Your task to perform on an android device: Search for seafood restaurants on Google Maps Image 0: 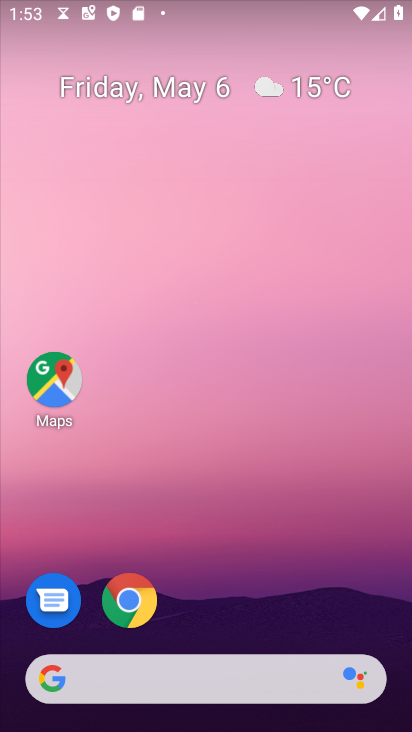
Step 0: drag from (271, 545) to (204, 38)
Your task to perform on an android device: Search for seafood restaurants on Google Maps Image 1: 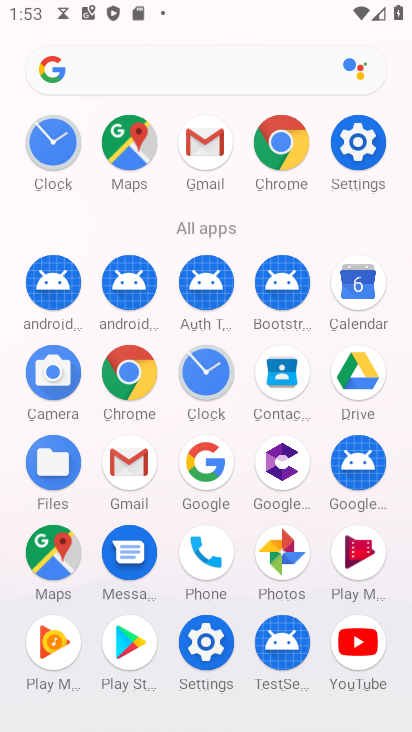
Step 1: drag from (20, 528) to (2, 220)
Your task to perform on an android device: Search for seafood restaurants on Google Maps Image 2: 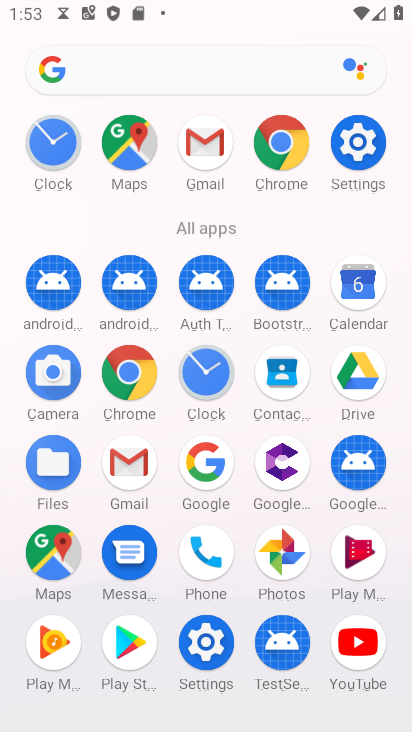
Step 2: click (45, 551)
Your task to perform on an android device: Search for seafood restaurants on Google Maps Image 3: 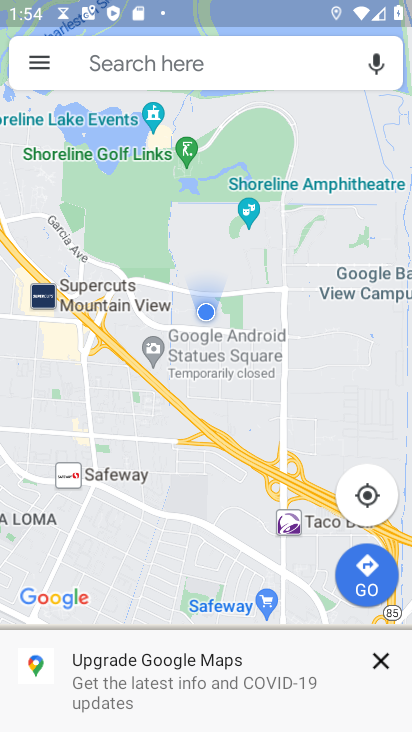
Step 3: click (248, 57)
Your task to perform on an android device: Search for seafood restaurants on Google Maps Image 4: 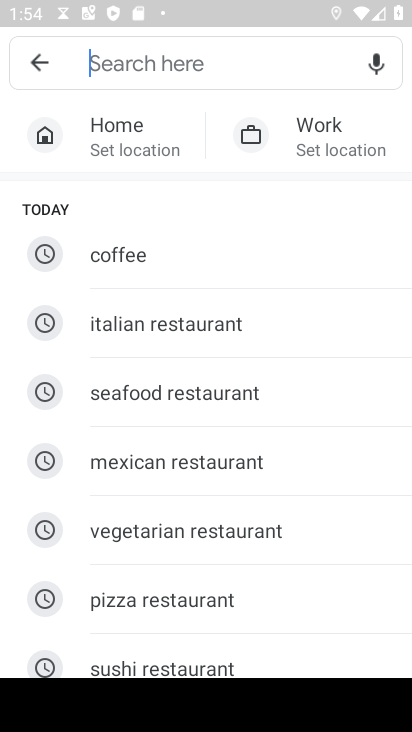
Step 4: click (185, 383)
Your task to perform on an android device: Search for seafood restaurants on Google Maps Image 5: 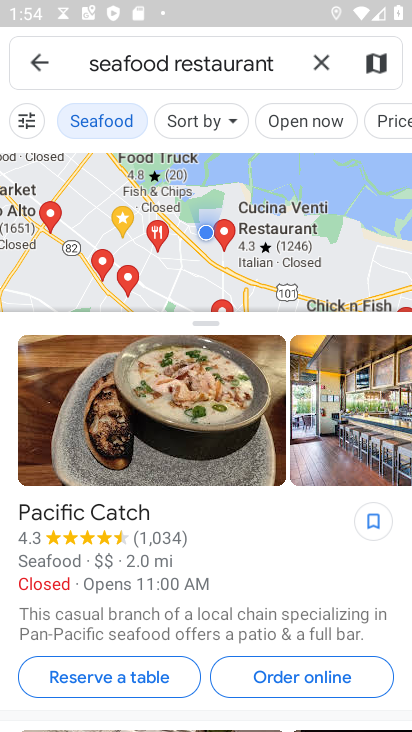
Step 5: task complete